Your task to perform on an android device: View the shopping cart on costco.com. Add usb-a to usb-b to the cart on costco.com, then select checkout. Image 0: 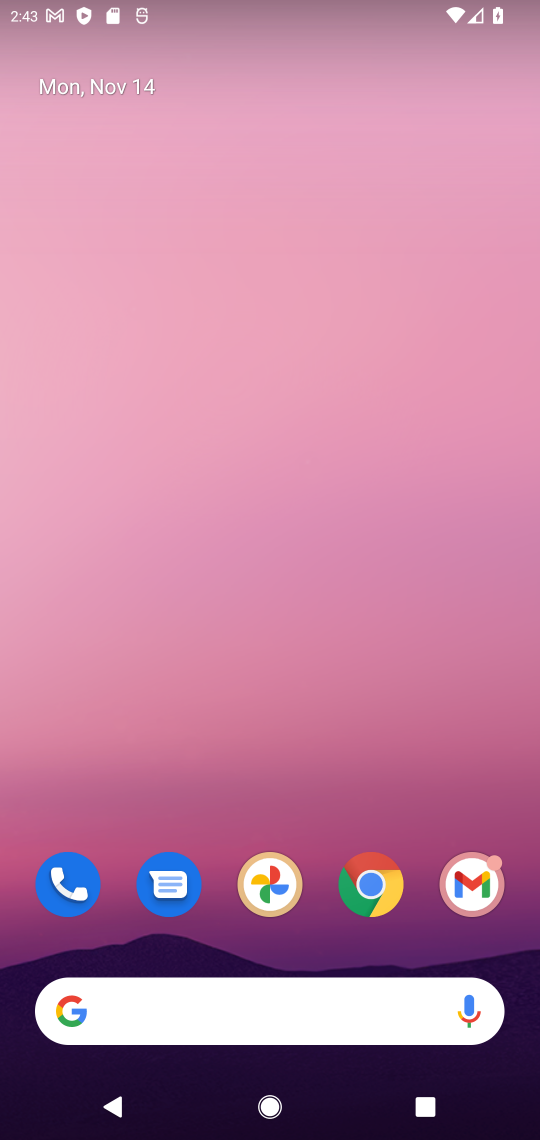
Step 0: click (375, 886)
Your task to perform on an android device: View the shopping cart on costco.com. Add usb-a to usb-b to the cart on costco.com, then select checkout. Image 1: 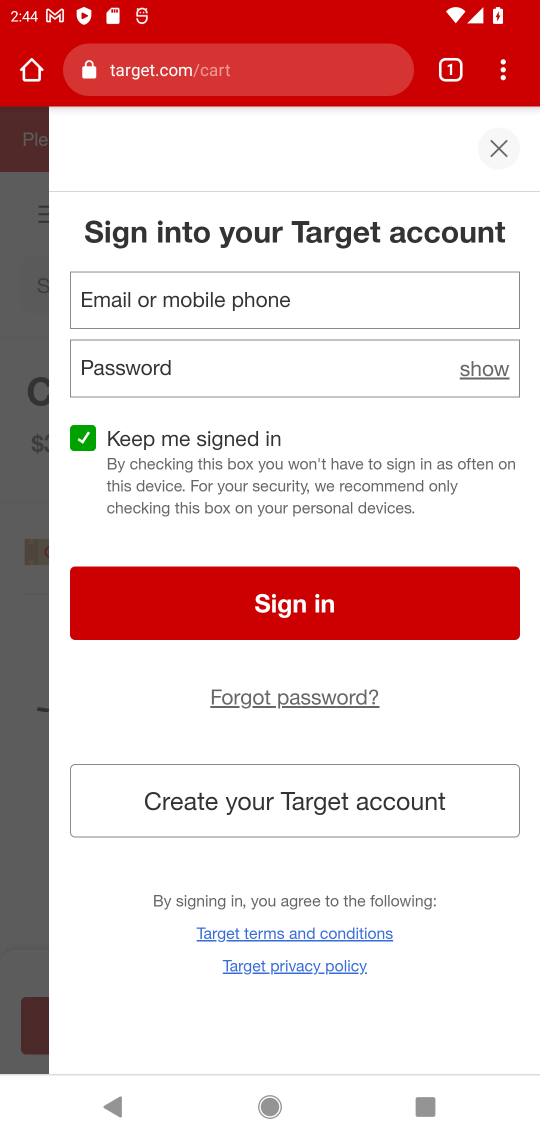
Step 1: click (281, 84)
Your task to perform on an android device: View the shopping cart on costco.com. Add usb-a to usb-b to the cart on costco.com, then select checkout. Image 2: 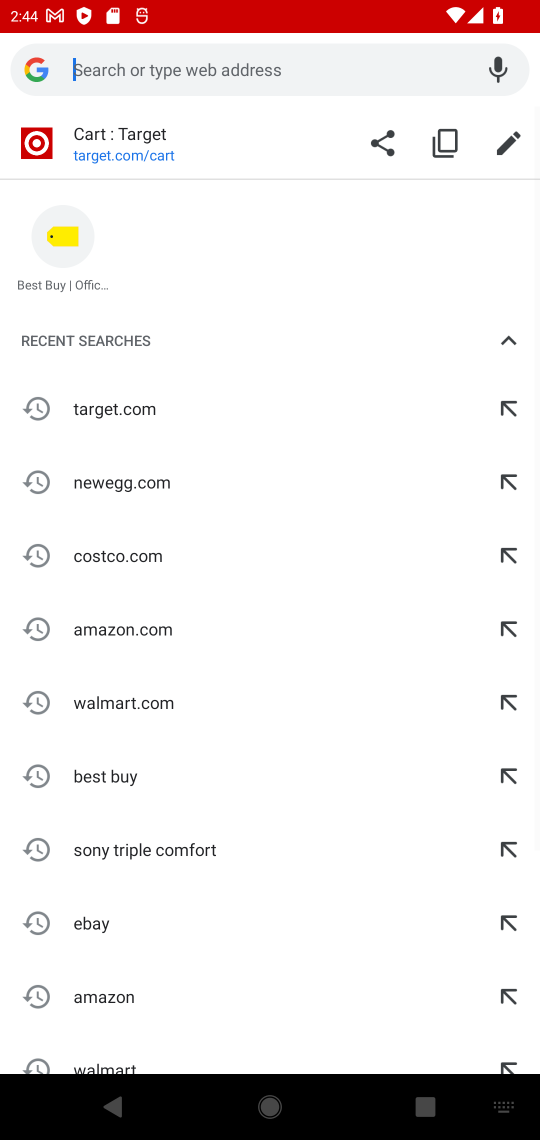
Step 2: click (131, 554)
Your task to perform on an android device: View the shopping cart on costco.com. Add usb-a to usb-b to the cart on costco.com, then select checkout. Image 3: 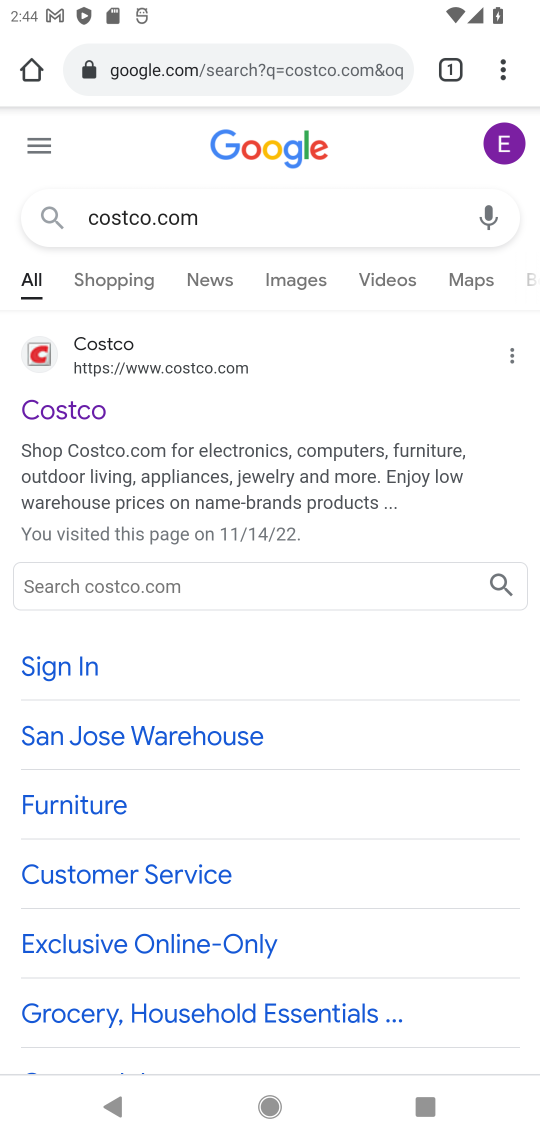
Step 3: click (149, 366)
Your task to perform on an android device: View the shopping cart on costco.com. Add usb-a to usb-b to the cart on costco.com, then select checkout. Image 4: 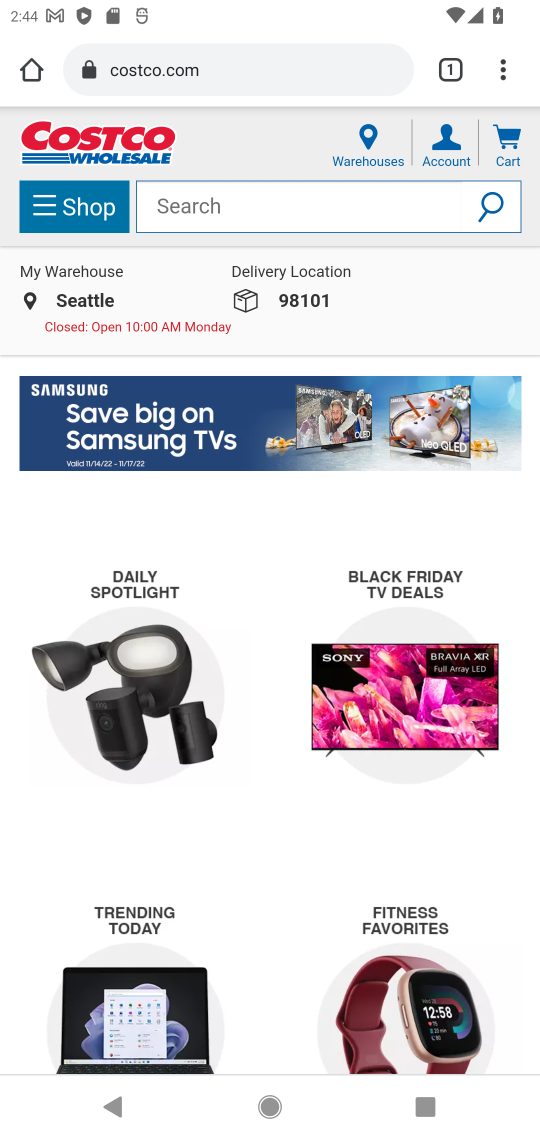
Step 4: click (378, 217)
Your task to perform on an android device: View the shopping cart on costco.com. Add usb-a to usb-b to the cart on costco.com, then select checkout. Image 5: 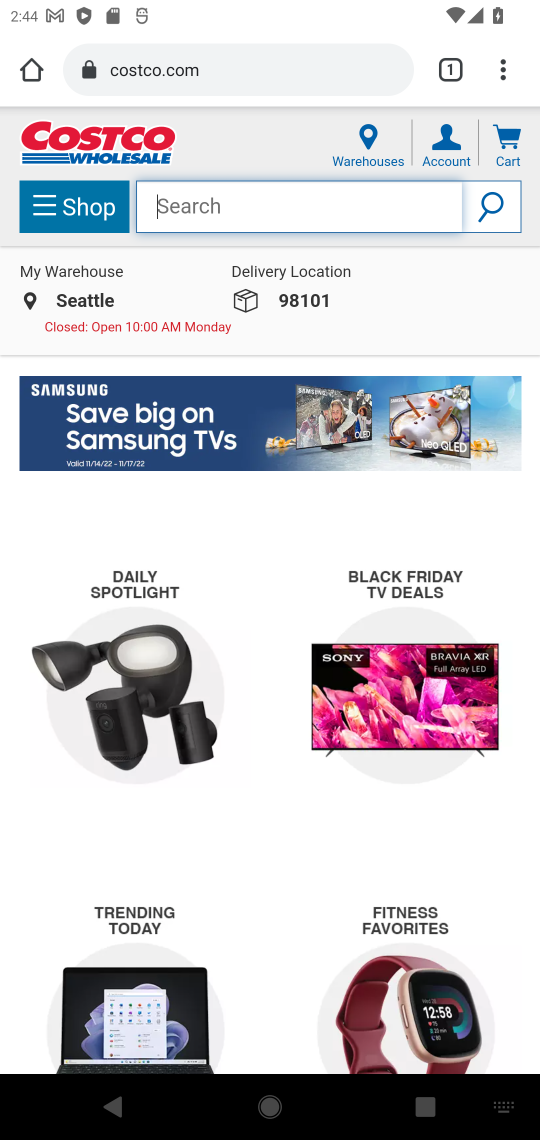
Step 5: press enter
Your task to perform on an android device: View the shopping cart on costco.com. Add usb-a to usb-b to the cart on costco.com, then select checkout. Image 6: 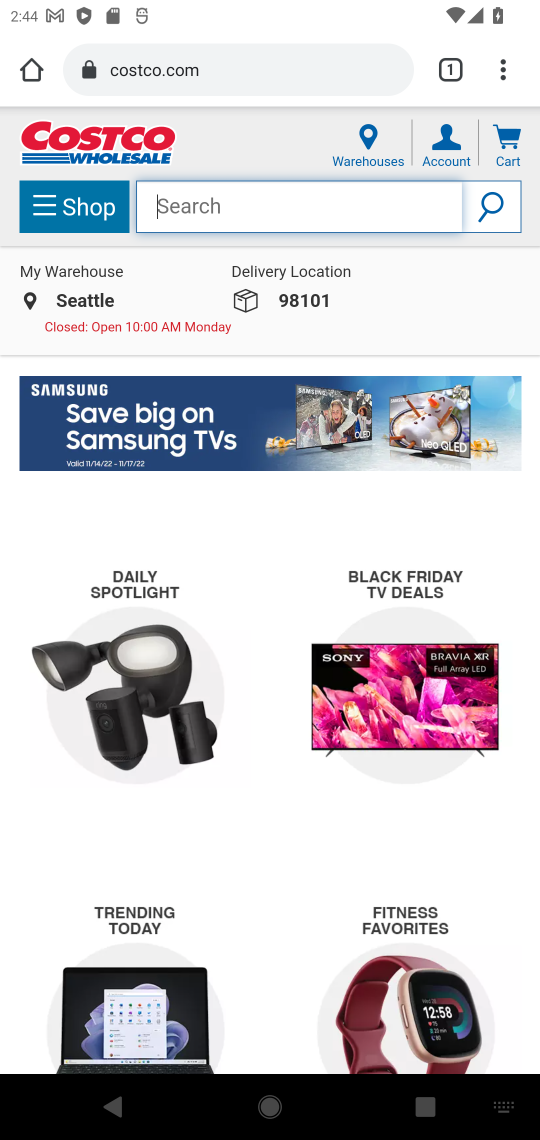
Step 6: type "usb-a to usb-b"
Your task to perform on an android device: View the shopping cart on costco.com. Add usb-a to usb-b to the cart on costco.com, then select checkout. Image 7: 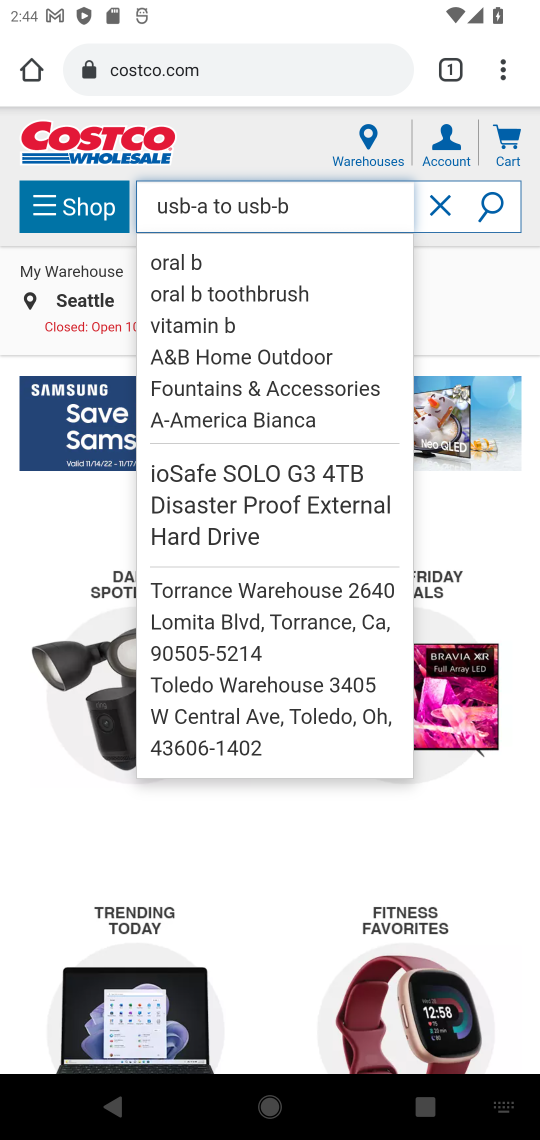
Step 7: click (488, 209)
Your task to perform on an android device: View the shopping cart on costco.com. Add usb-a to usb-b to the cart on costco.com, then select checkout. Image 8: 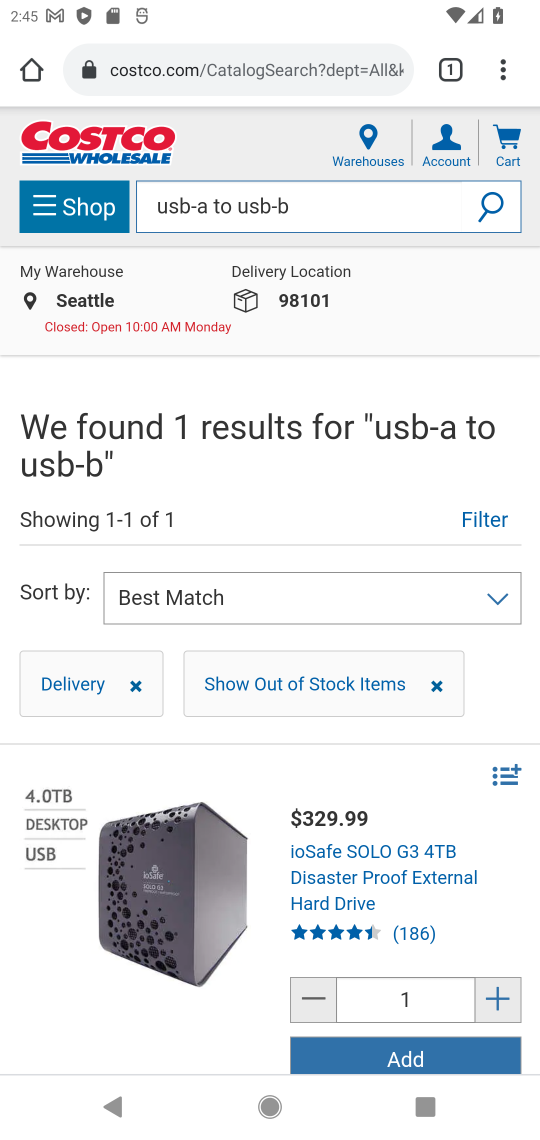
Step 8: task complete